Your task to perform on an android device: install app "Microsoft Outlook" Image 0: 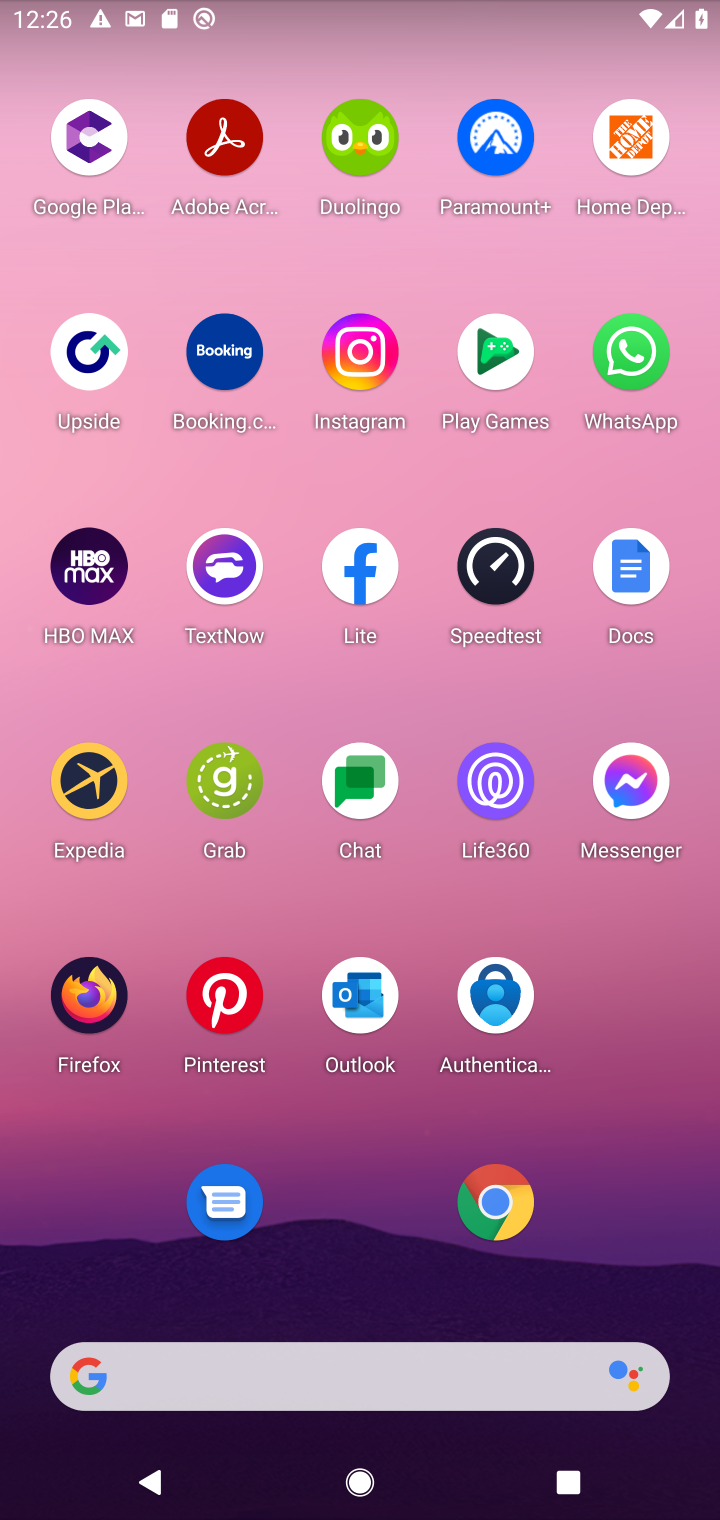
Step 0: click (433, 813)
Your task to perform on an android device: install app "Microsoft Outlook" Image 1: 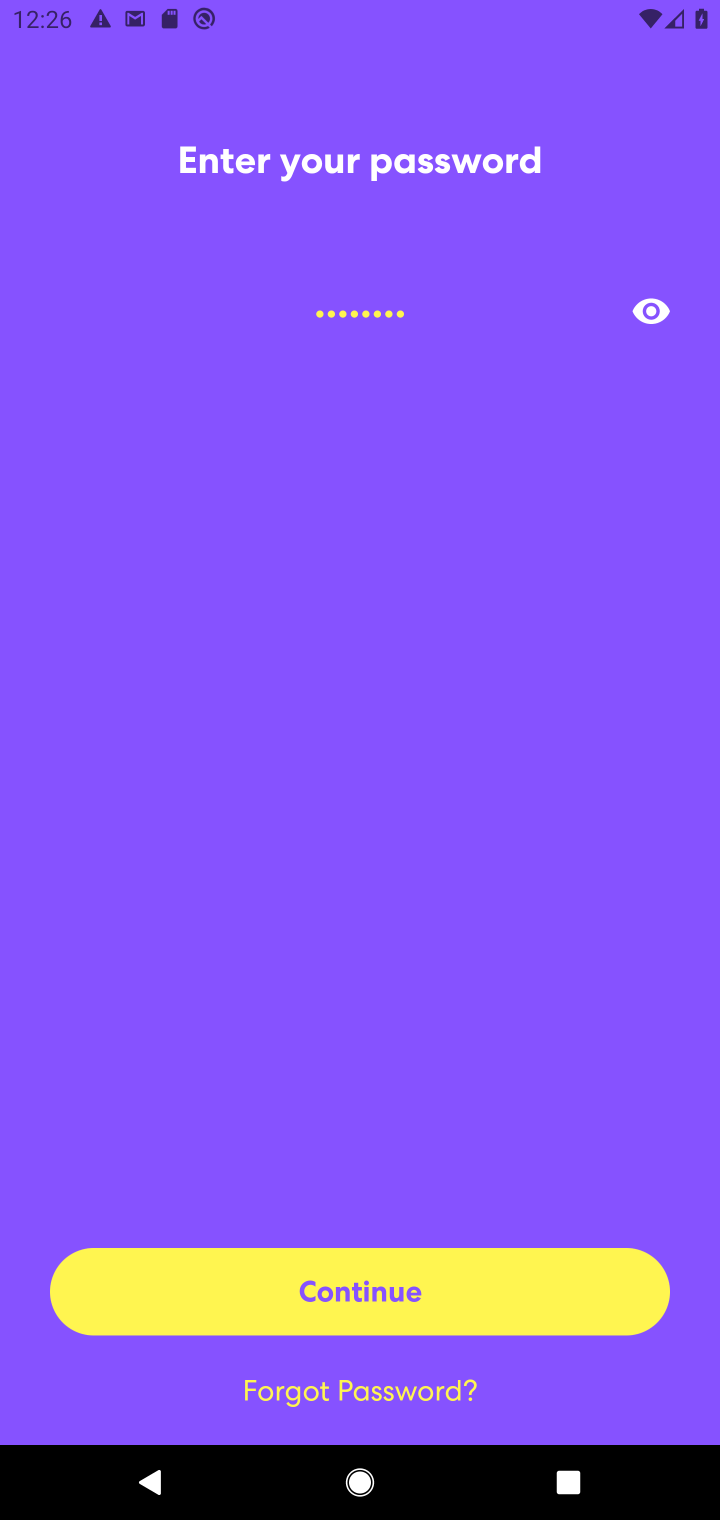
Step 1: press home button
Your task to perform on an android device: install app "Microsoft Outlook" Image 2: 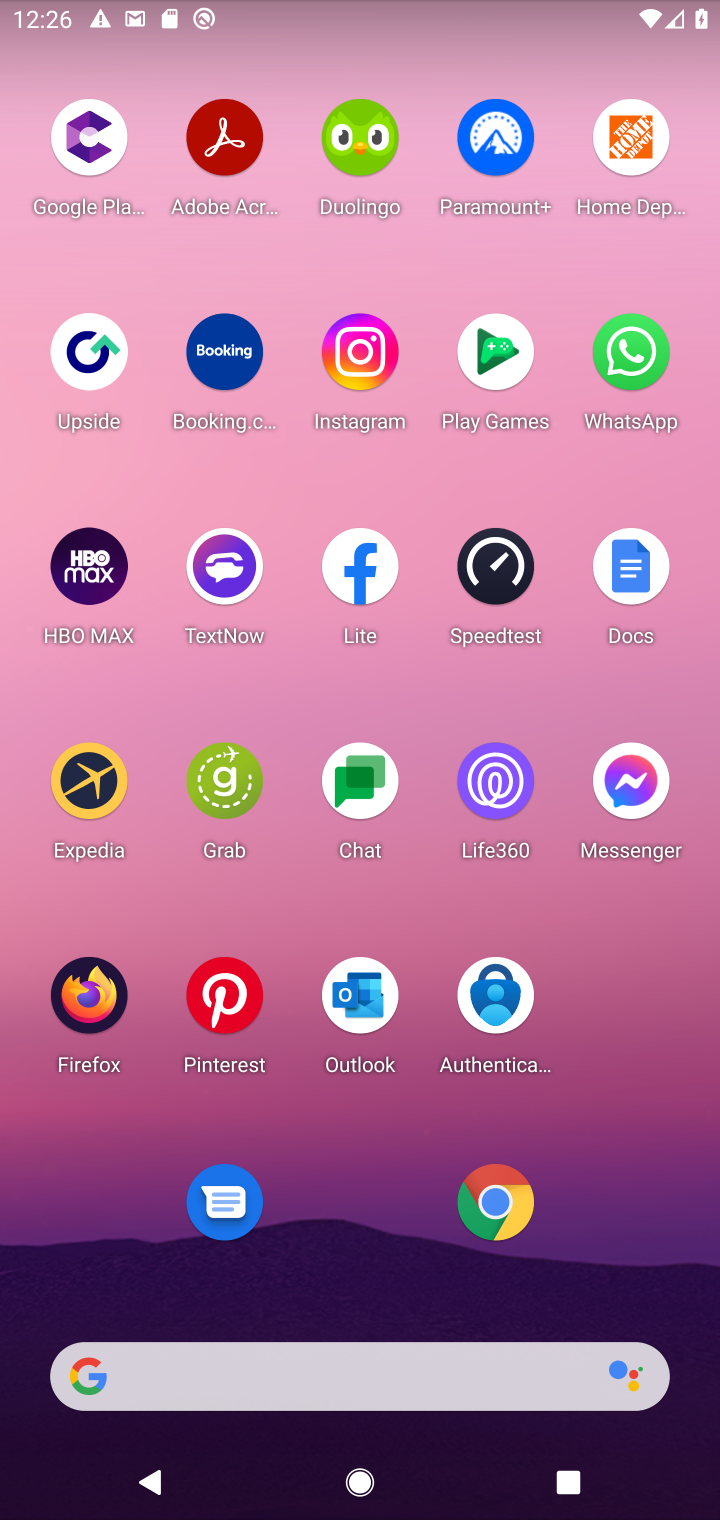
Step 2: drag from (351, 1210) to (344, 188)
Your task to perform on an android device: install app "Microsoft Outlook" Image 3: 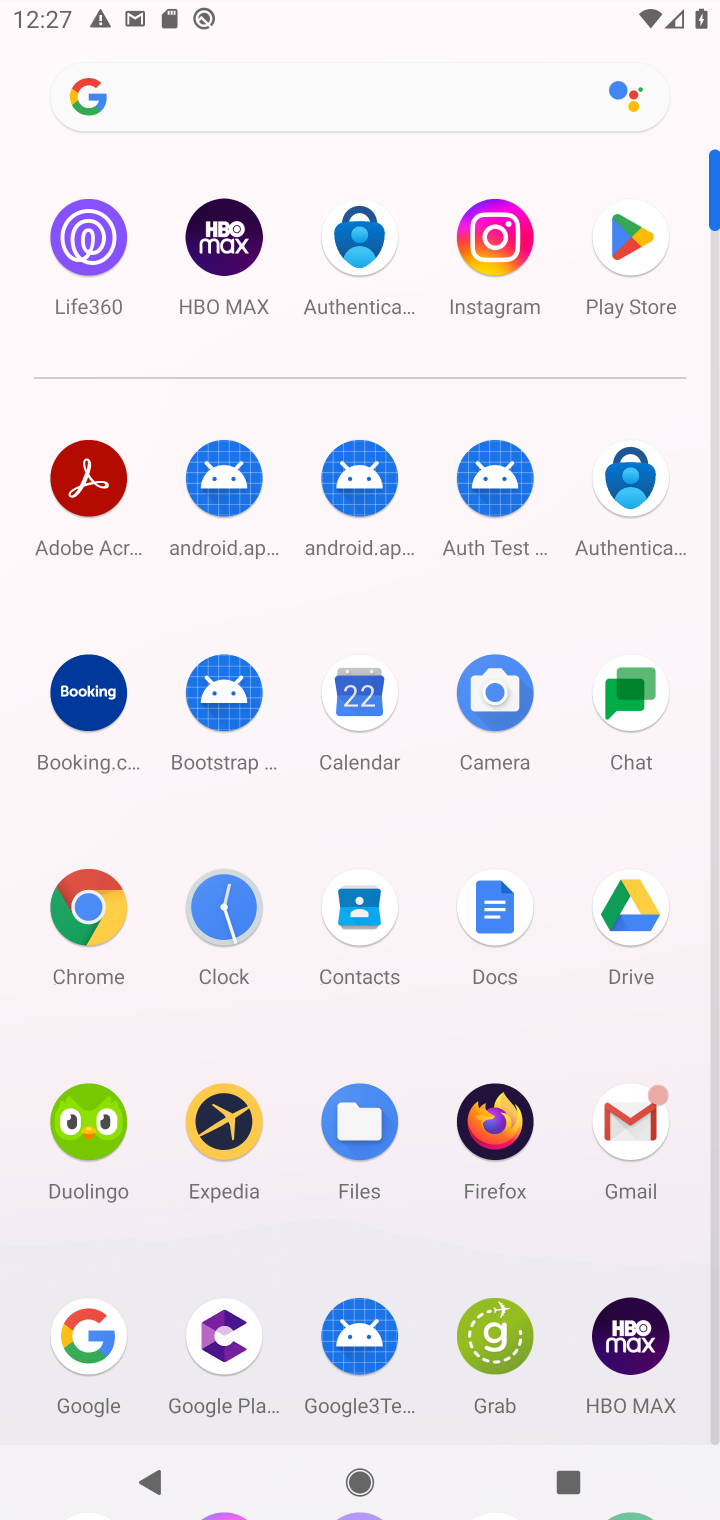
Step 3: click (649, 248)
Your task to perform on an android device: install app "Microsoft Outlook" Image 4: 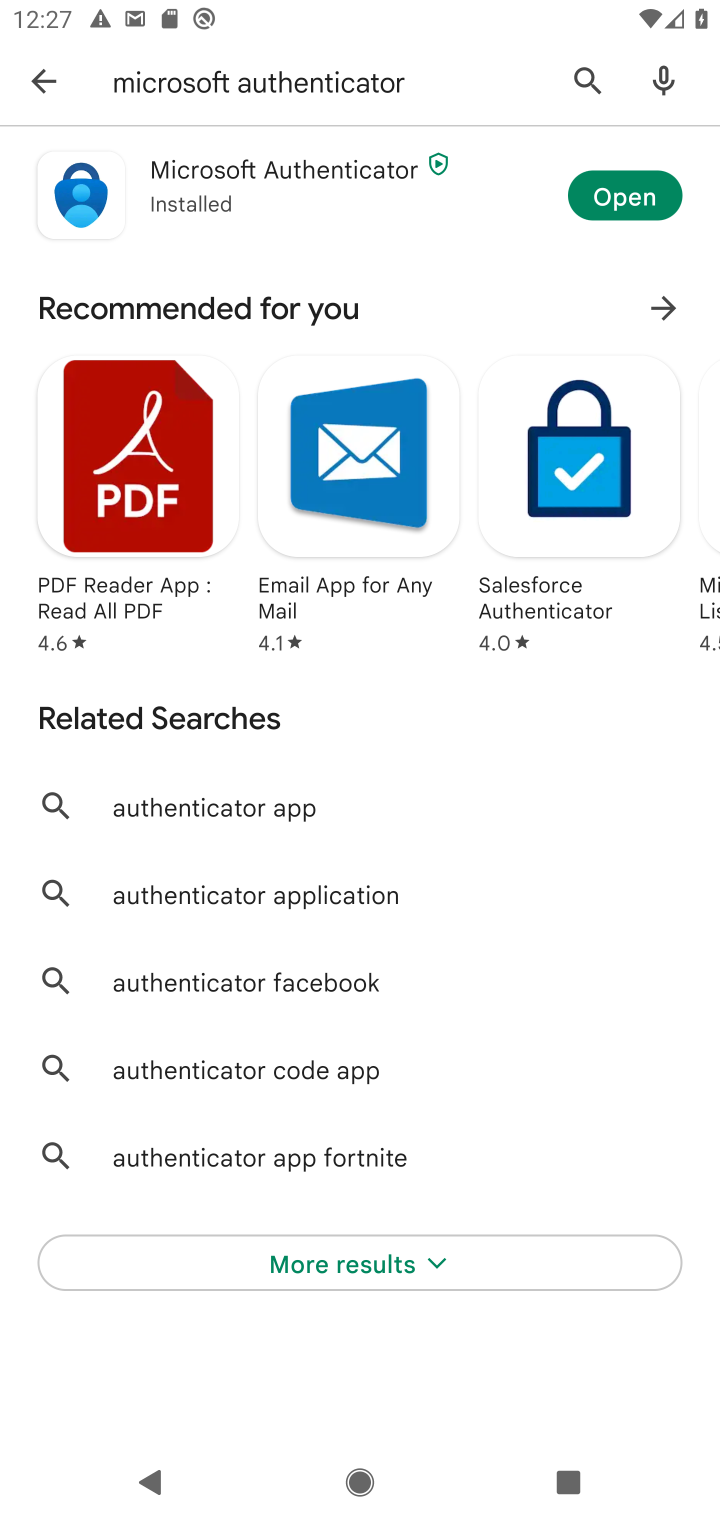
Step 4: click (580, 77)
Your task to perform on an android device: install app "Microsoft Outlook" Image 5: 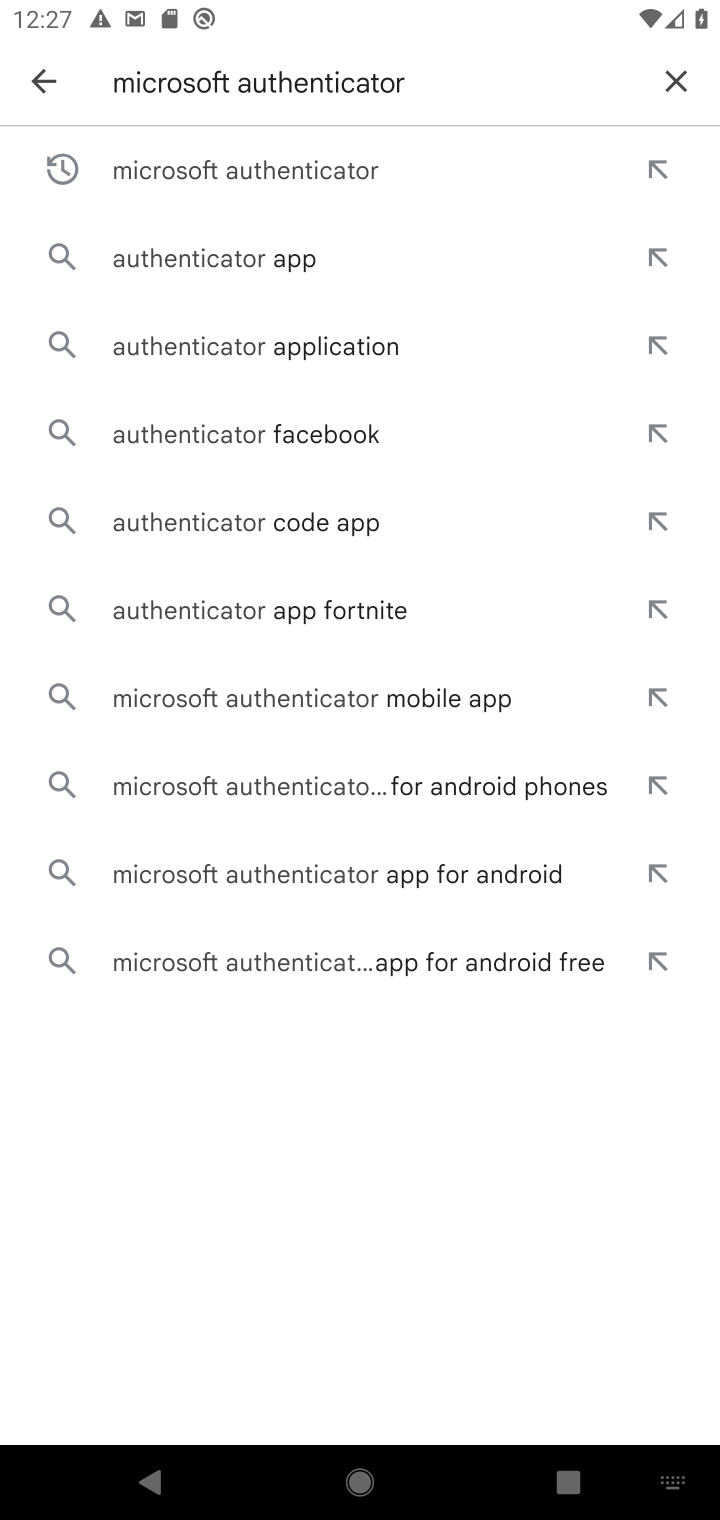
Step 5: click (664, 74)
Your task to perform on an android device: install app "Microsoft Outlook" Image 6: 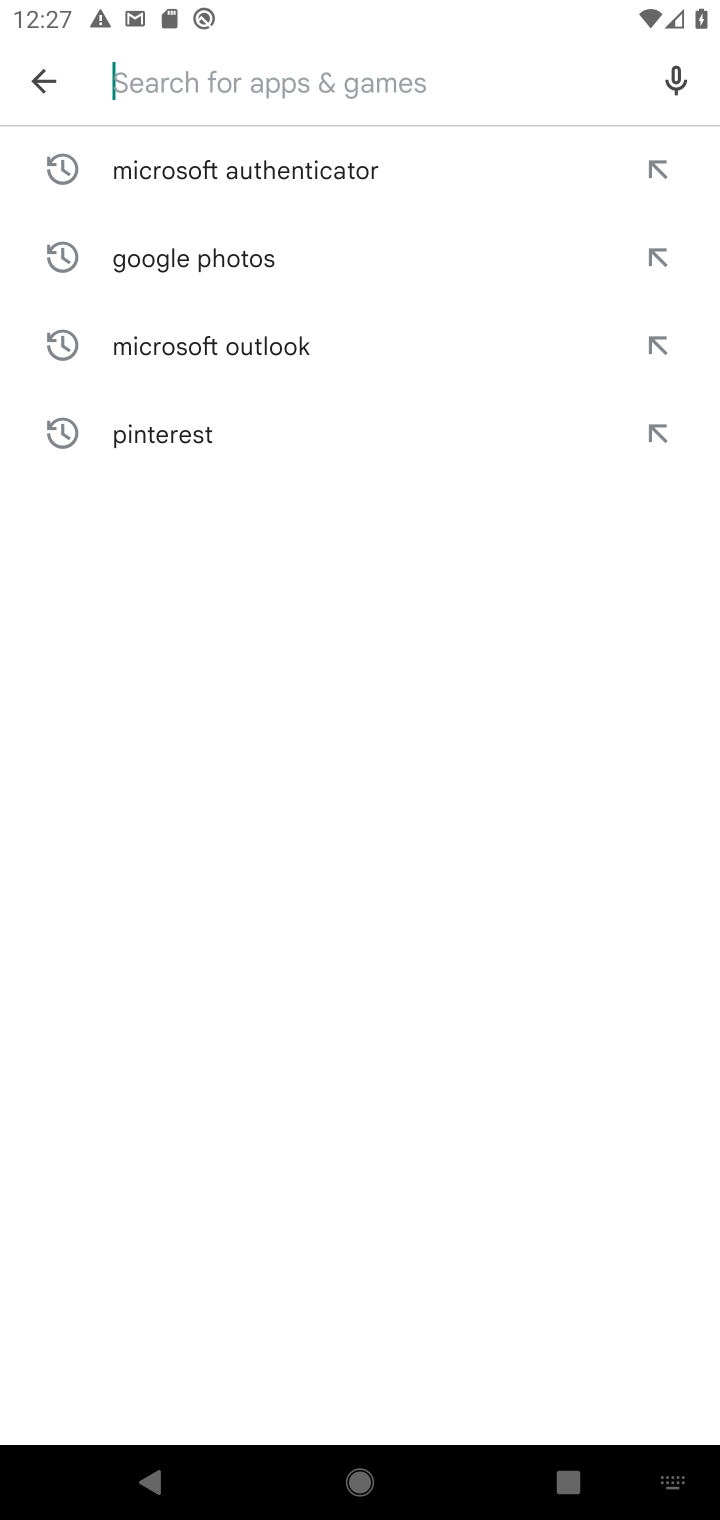
Step 6: type "Microsoft Outlook"
Your task to perform on an android device: install app "Microsoft Outlook" Image 7: 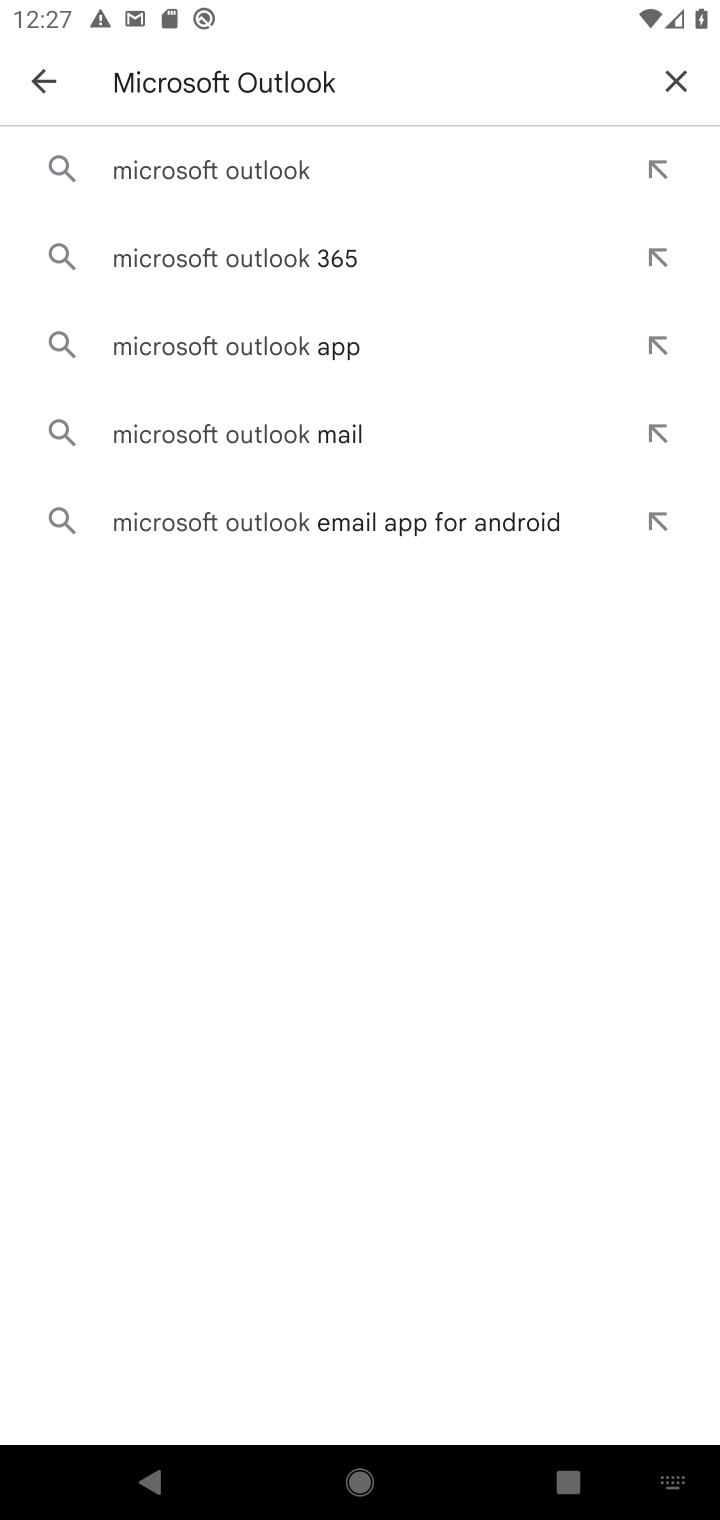
Step 7: click (252, 170)
Your task to perform on an android device: install app "Microsoft Outlook" Image 8: 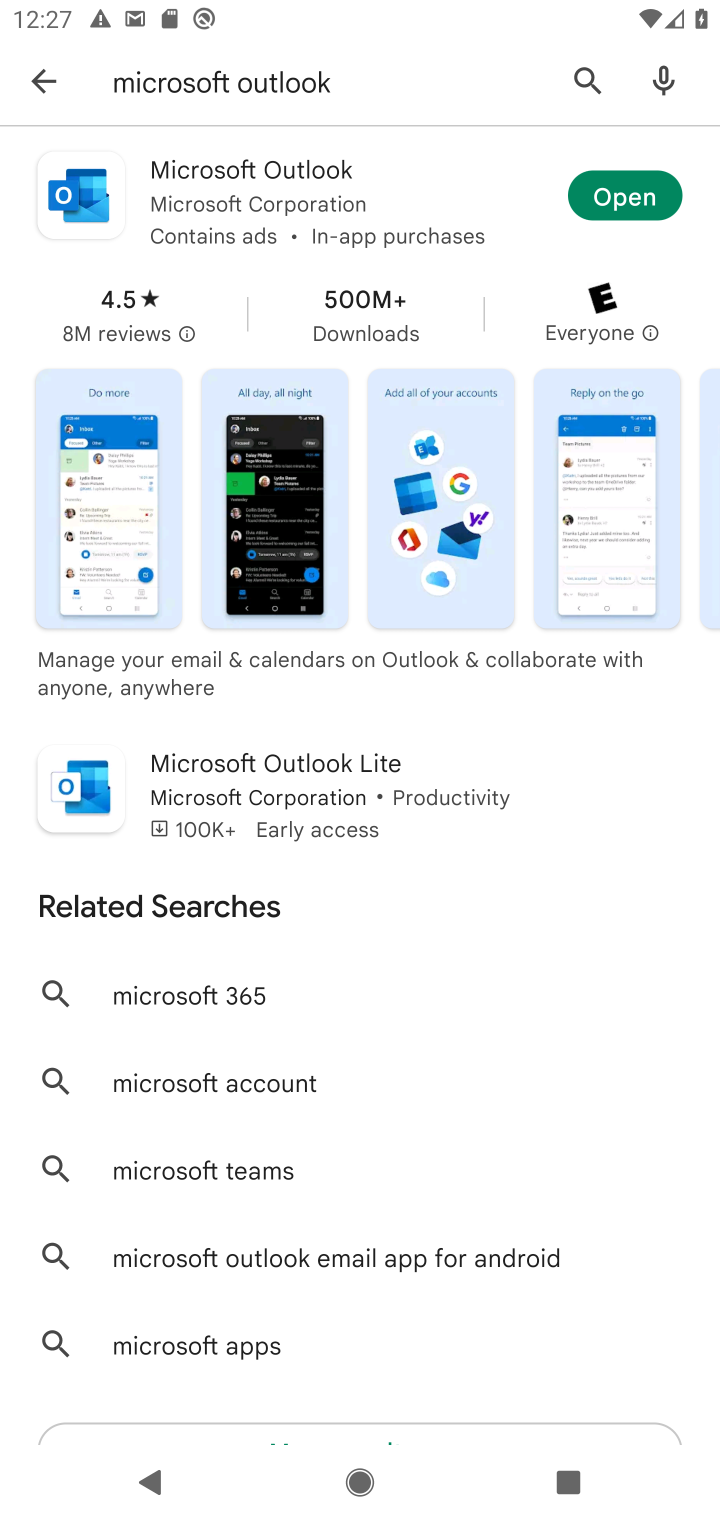
Step 8: task complete